Your task to perform on an android device: choose inbox layout in the gmail app Image 0: 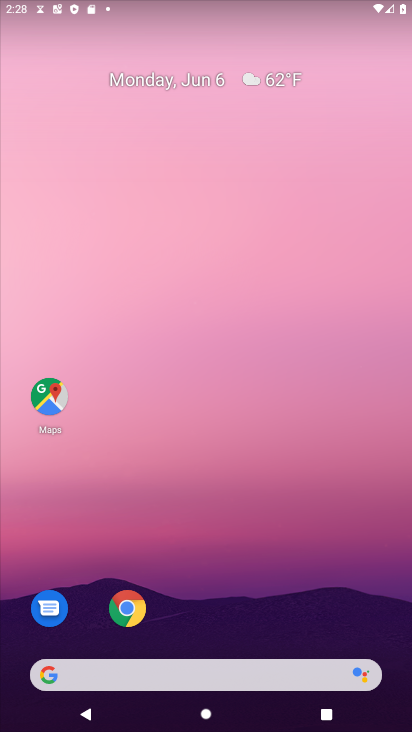
Step 0: drag from (250, 600) to (291, 1)
Your task to perform on an android device: choose inbox layout in the gmail app Image 1: 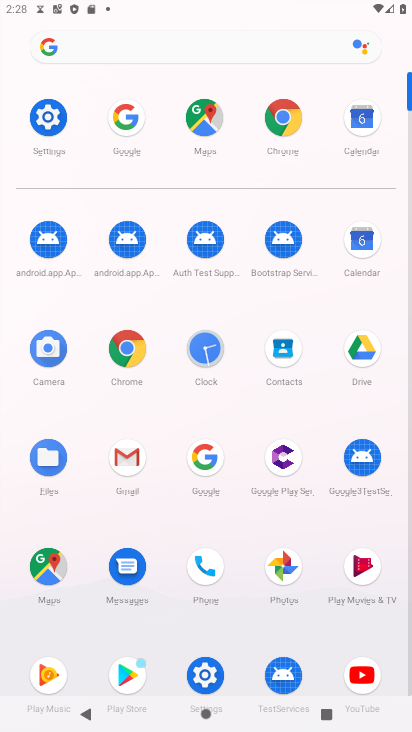
Step 1: click (130, 455)
Your task to perform on an android device: choose inbox layout in the gmail app Image 2: 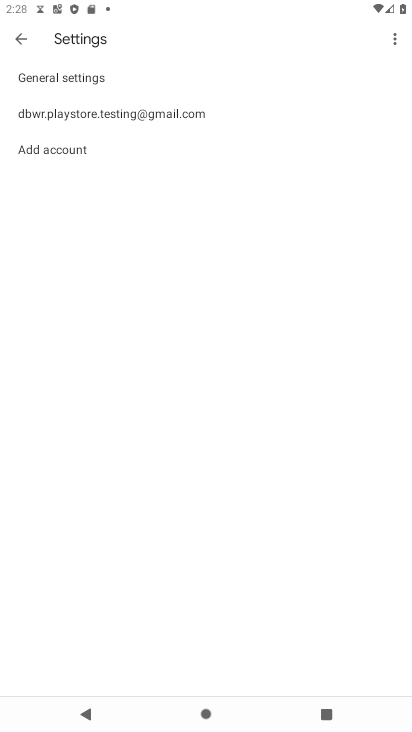
Step 2: click (2, 44)
Your task to perform on an android device: choose inbox layout in the gmail app Image 3: 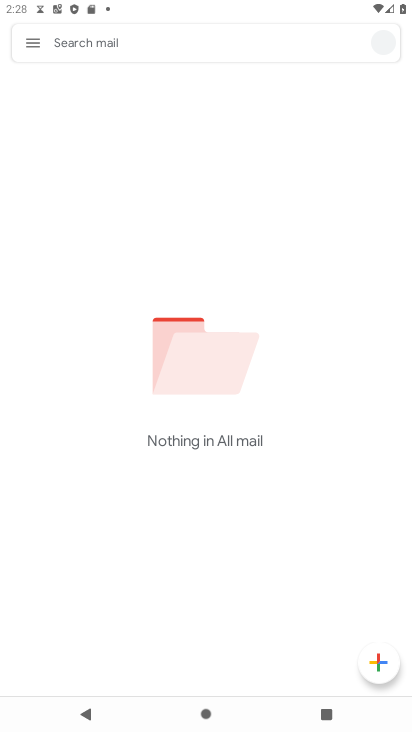
Step 3: click (33, 41)
Your task to perform on an android device: choose inbox layout in the gmail app Image 4: 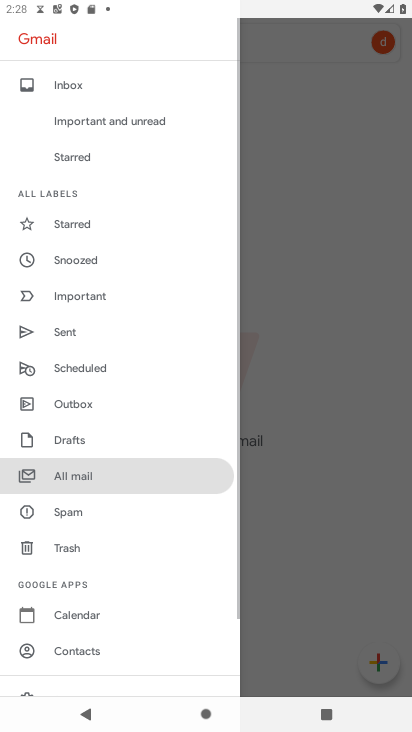
Step 4: drag from (114, 526) to (131, 84)
Your task to perform on an android device: choose inbox layout in the gmail app Image 5: 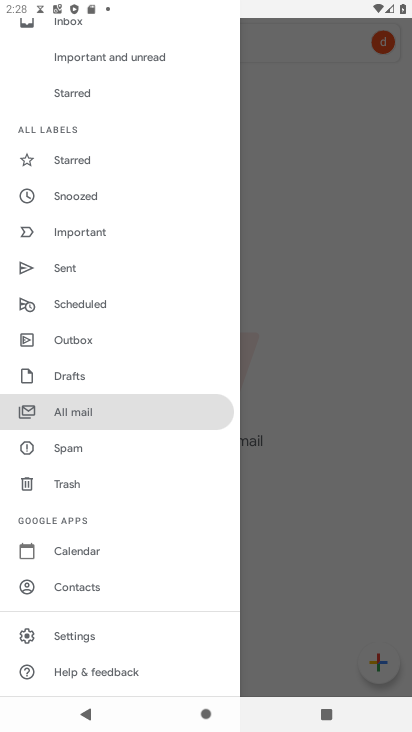
Step 5: click (67, 632)
Your task to perform on an android device: choose inbox layout in the gmail app Image 6: 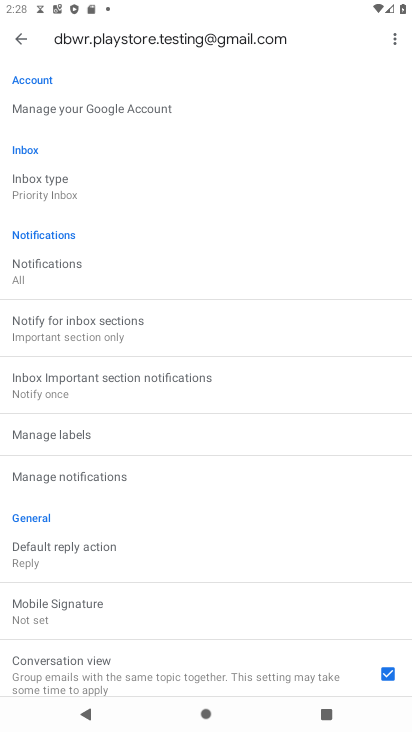
Step 6: click (45, 183)
Your task to perform on an android device: choose inbox layout in the gmail app Image 7: 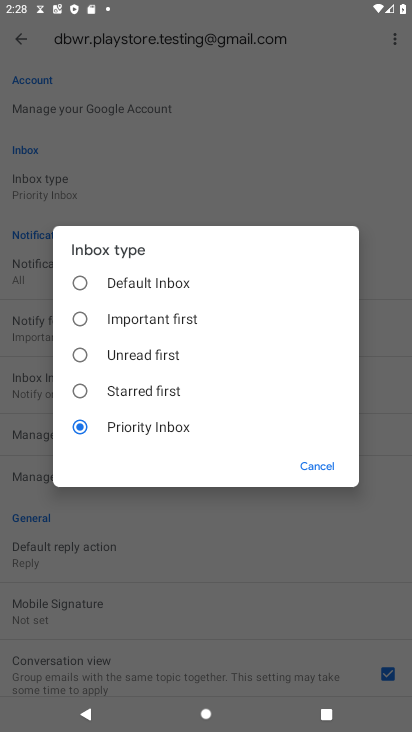
Step 7: click (102, 348)
Your task to perform on an android device: choose inbox layout in the gmail app Image 8: 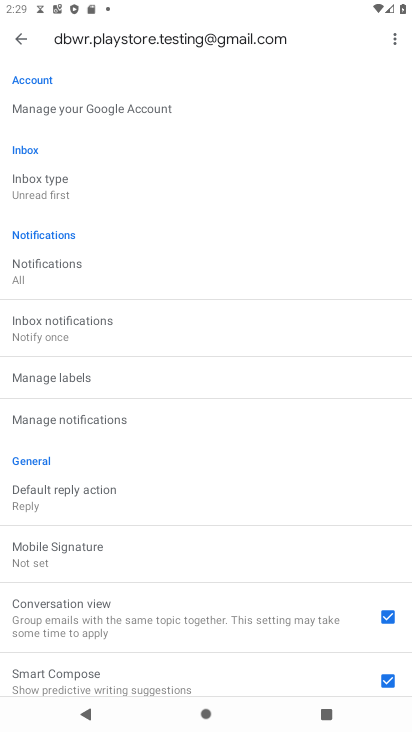
Step 8: task complete